Your task to perform on an android device: Go to settings Image 0: 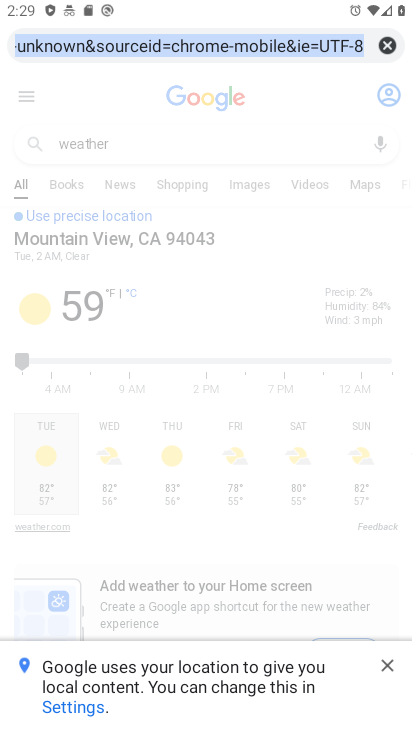
Step 0: click (243, 53)
Your task to perform on an android device: Go to settings Image 1: 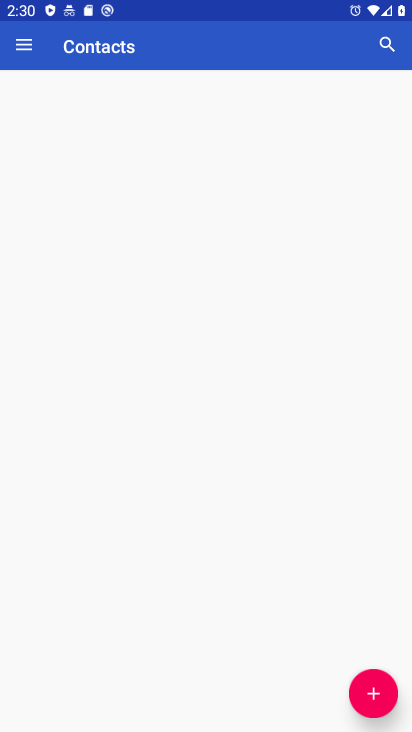
Step 1: drag from (201, 471) to (193, 42)
Your task to perform on an android device: Go to settings Image 2: 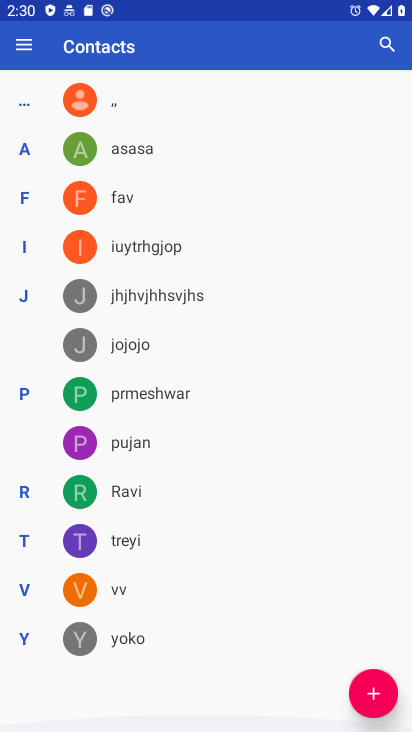
Step 2: drag from (129, 223) to (114, 116)
Your task to perform on an android device: Go to settings Image 3: 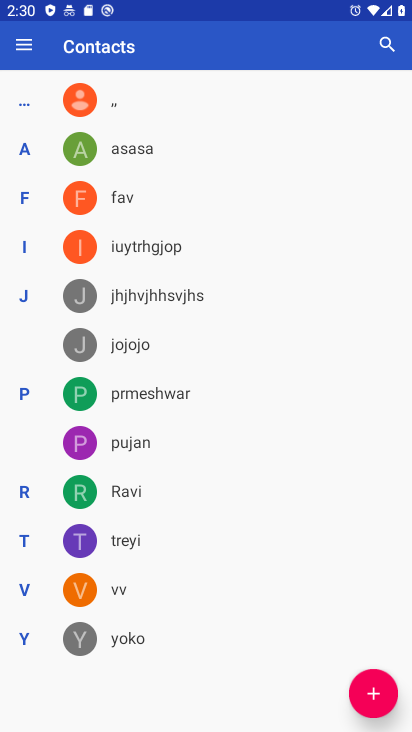
Step 3: press back button
Your task to perform on an android device: Go to settings Image 4: 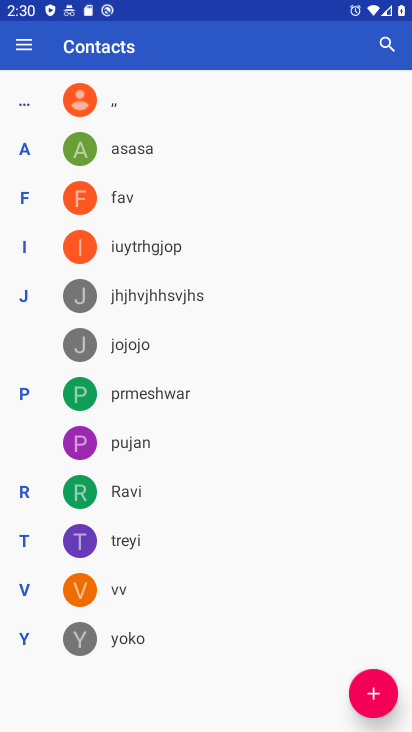
Step 4: press back button
Your task to perform on an android device: Go to settings Image 5: 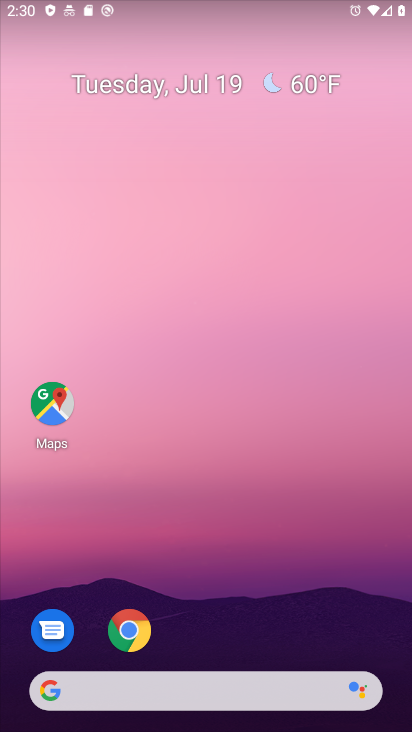
Step 5: drag from (210, 647) to (167, 205)
Your task to perform on an android device: Go to settings Image 6: 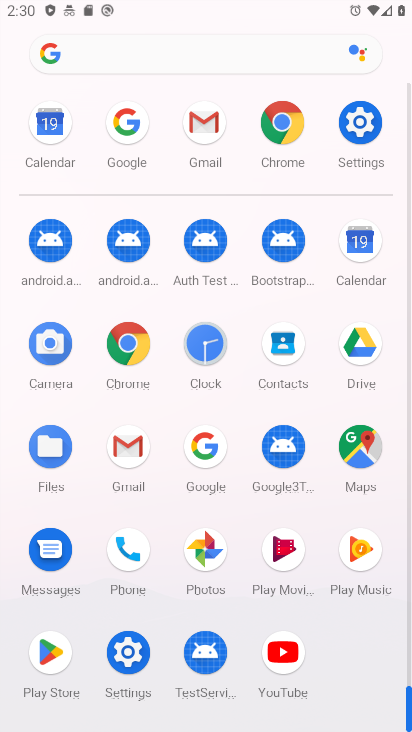
Step 6: click (357, 121)
Your task to perform on an android device: Go to settings Image 7: 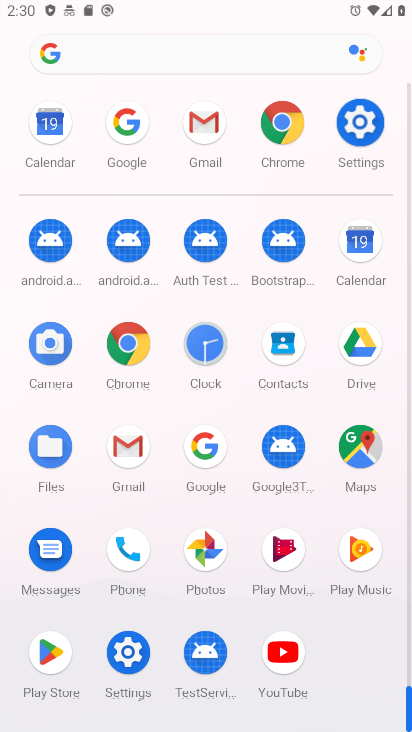
Step 7: click (352, 117)
Your task to perform on an android device: Go to settings Image 8: 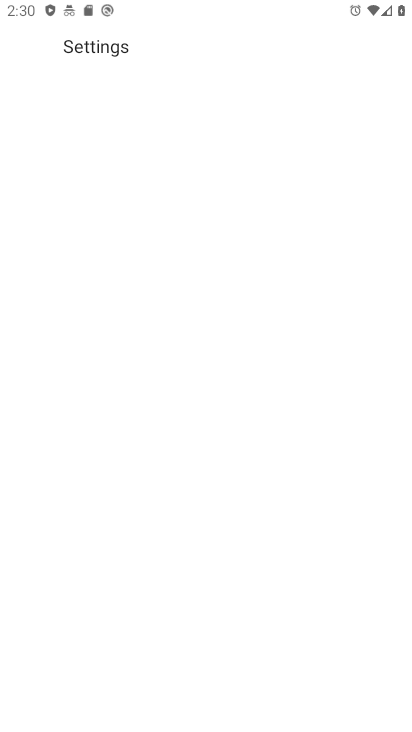
Step 8: click (350, 122)
Your task to perform on an android device: Go to settings Image 9: 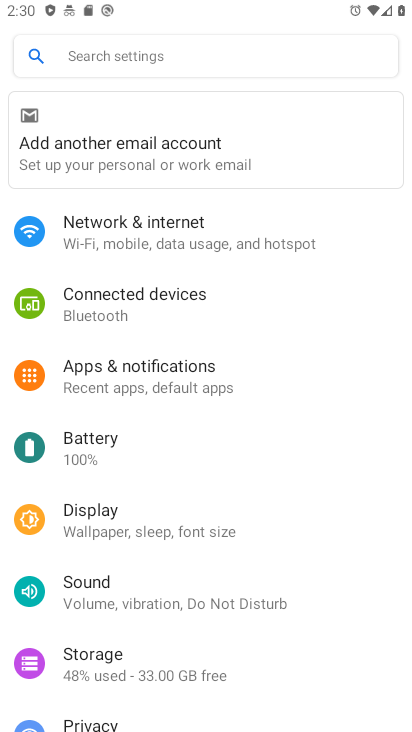
Step 9: task complete